Your task to perform on an android device: What is the recent news? Image 0: 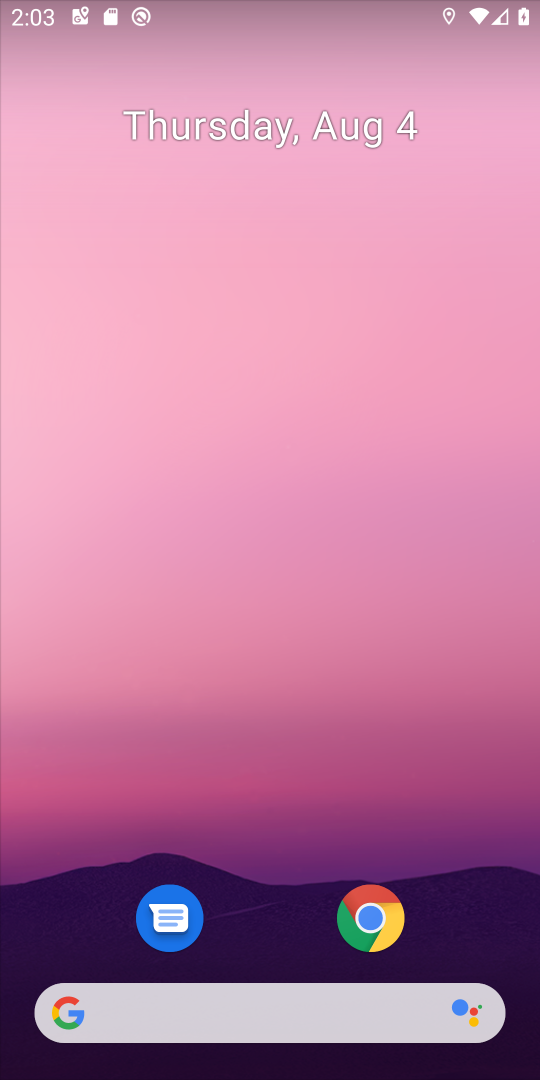
Step 0: drag from (245, 851) to (199, 427)
Your task to perform on an android device: What is the recent news? Image 1: 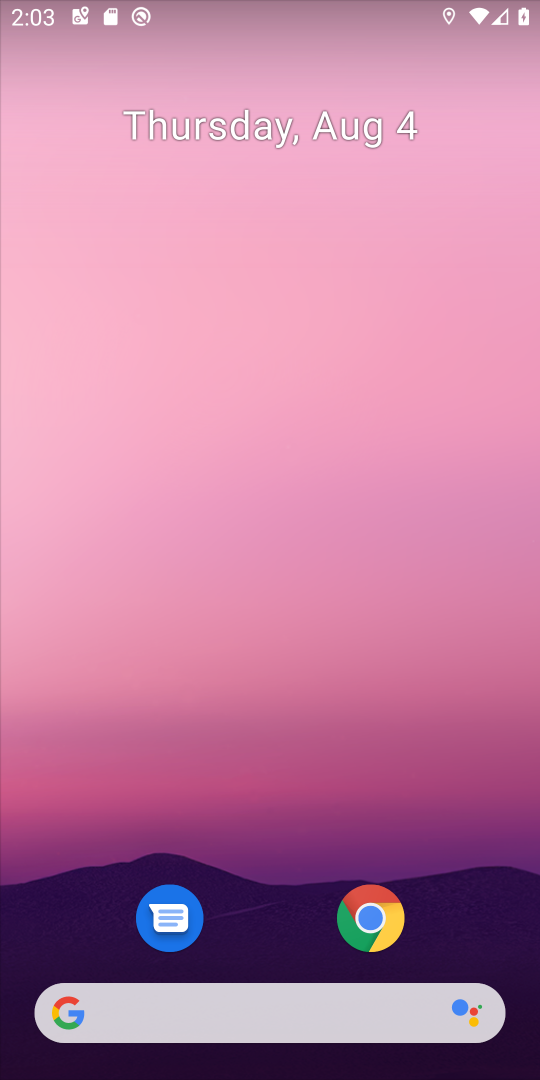
Step 1: drag from (281, 774) to (281, 616)
Your task to perform on an android device: What is the recent news? Image 2: 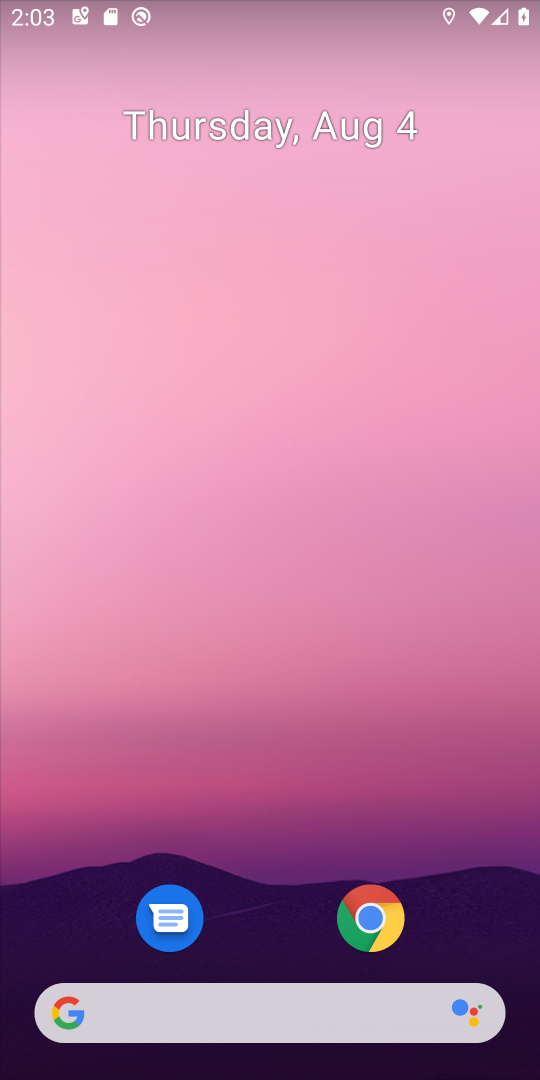
Step 2: drag from (266, 904) to (218, 306)
Your task to perform on an android device: What is the recent news? Image 3: 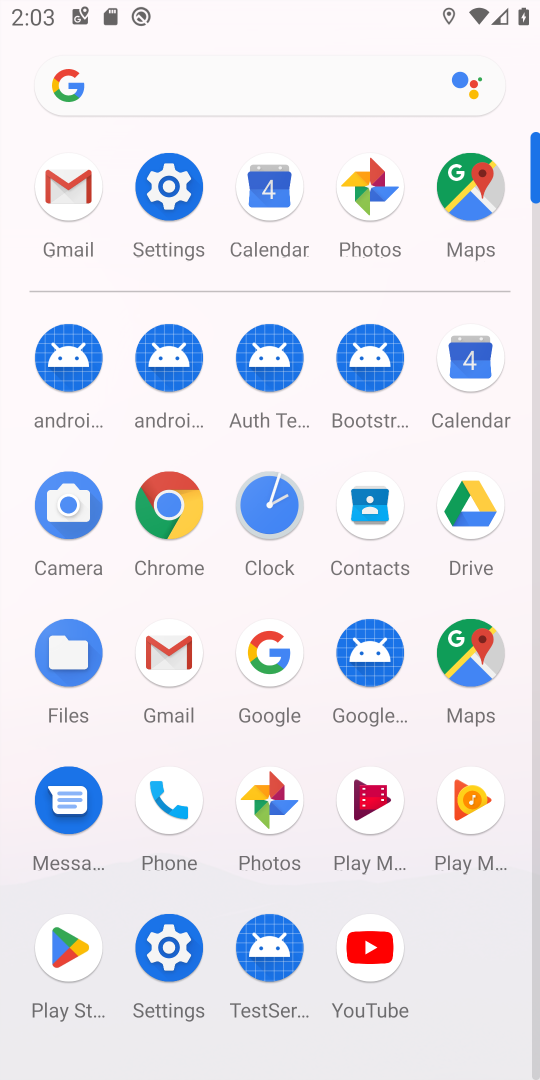
Step 3: click (267, 667)
Your task to perform on an android device: What is the recent news? Image 4: 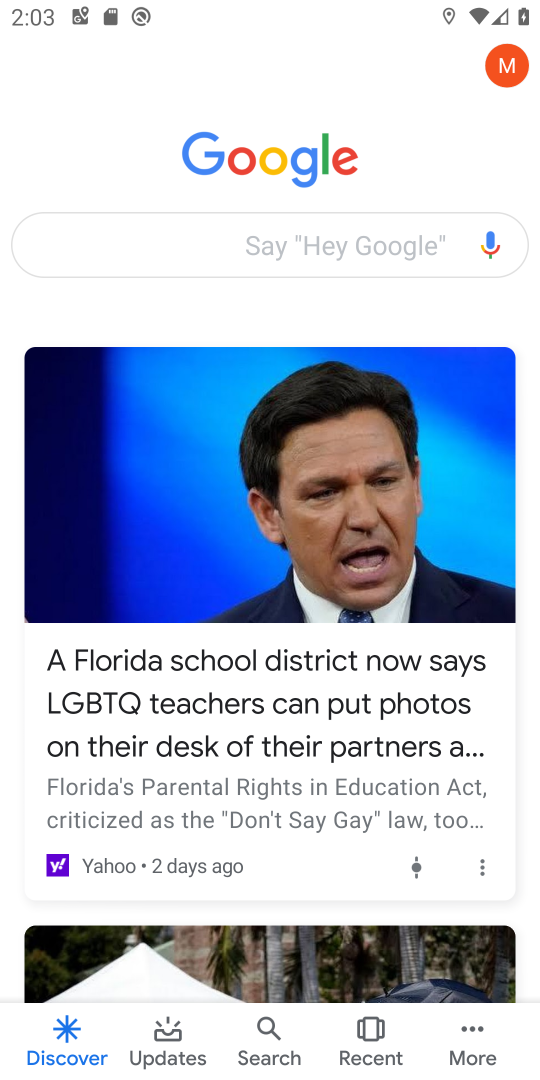
Step 4: click (161, 235)
Your task to perform on an android device: What is the recent news? Image 5: 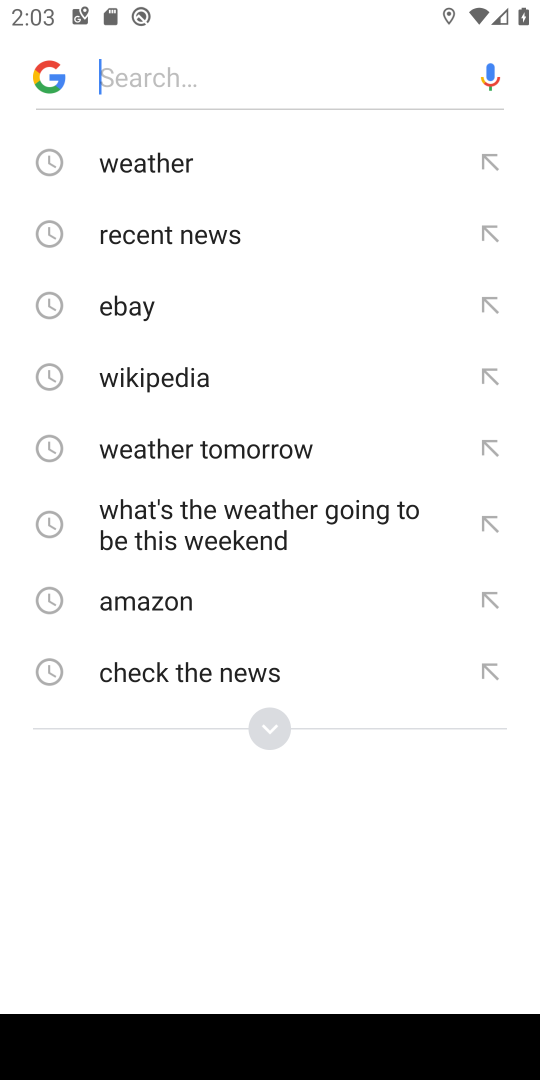
Step 5: click (221, 245)
Your task to perform on an android device: What is the recent news? Image 6: 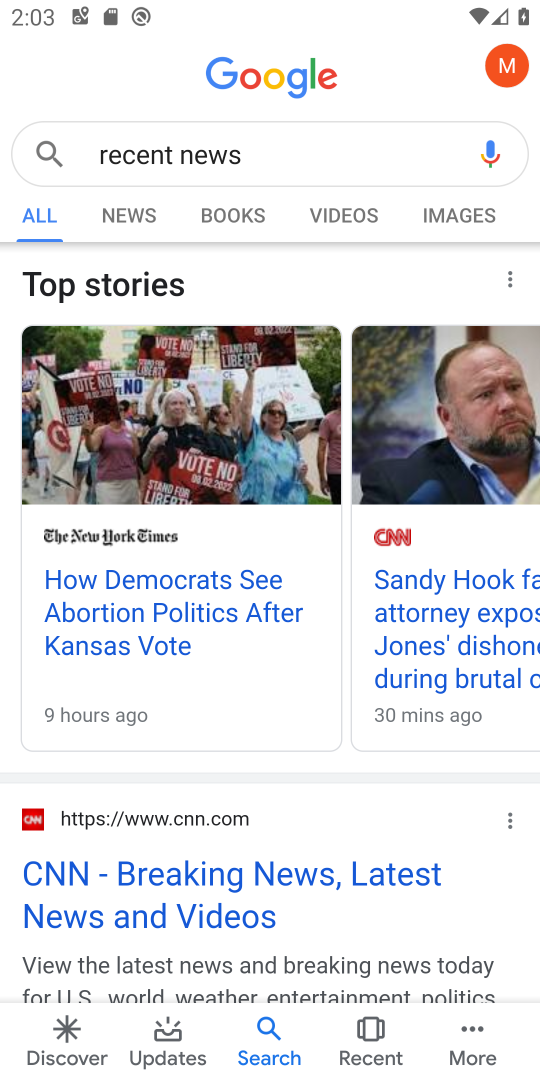
Step 6: click (140, 207)
Your task to perform on an android device: What is the recent news? Image 7: 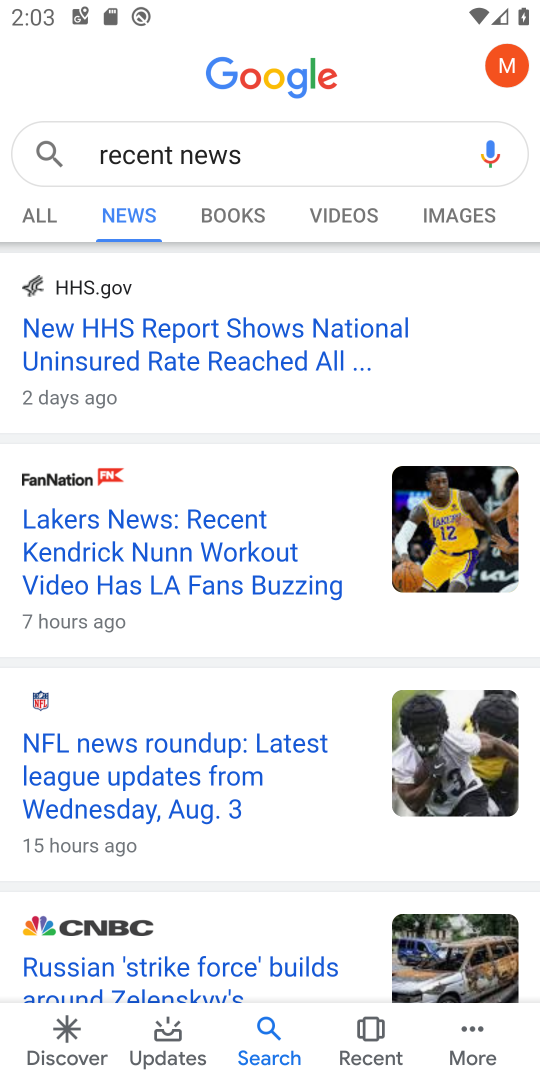
Step 7: task complete